Your task to perform on an android device: What's the weather going to be tomorrow? Image 0: 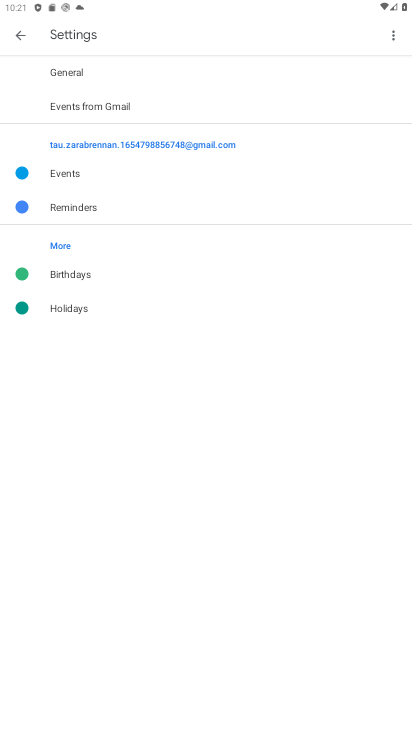
Step 0: press home button
Your task to perform on an android device: What's the weather going to be tomorrow? Image 1: 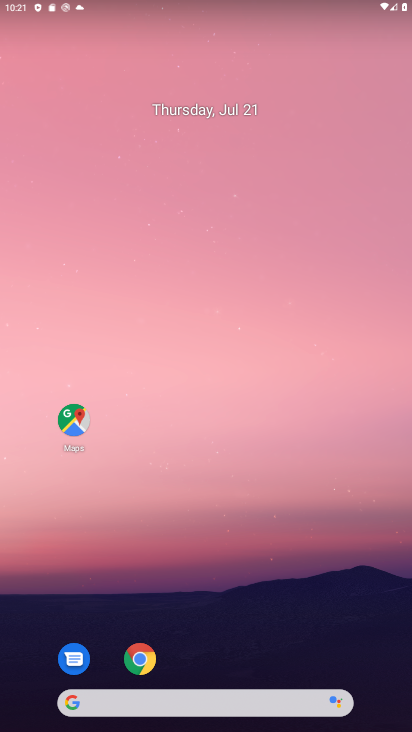
Step 1: drag from (228, 678) to (136, 22)
Your task to perform on an android device: What's the weather going to be tomorrow? Image 2: 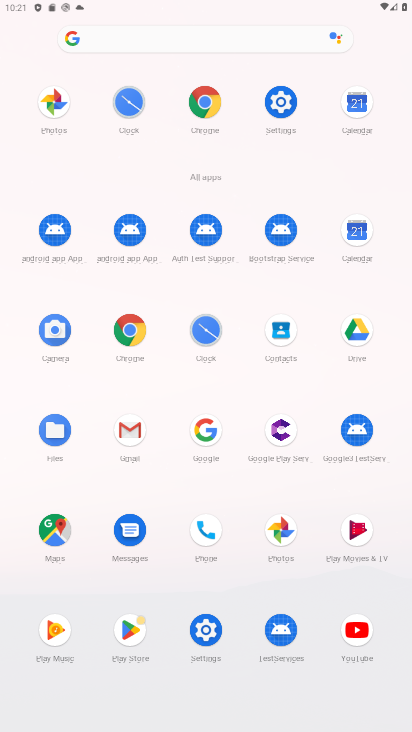
Step 2: click (254, 39)
Your task to perform on an android device: What's the weather going to be tomorrow? Image 3: 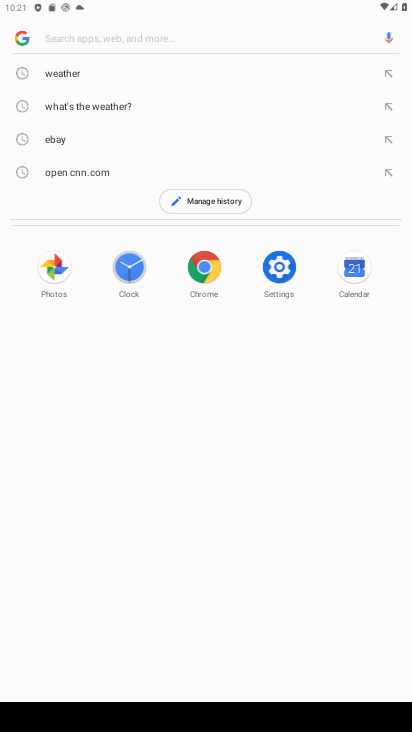
Step 3: click (158, 70)
Your task to perform on an android device: What's the weather going to be tomorrow? Image 4: 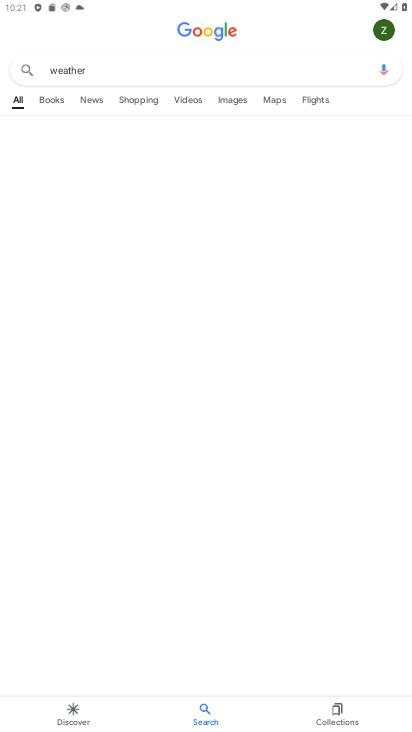
Step 4: task complete